Your task to perform on an android device: Go to privacy settings Image 0: 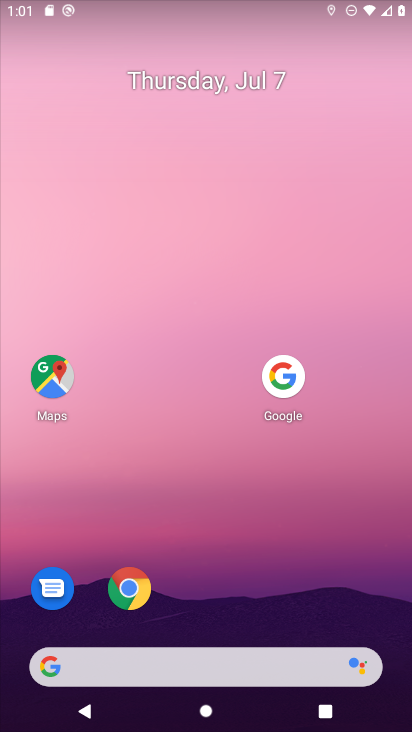
Step 0: drag from (212, 669) to (326, 65)
Your task to perform on an android device: Go to privacy settings Image 1: 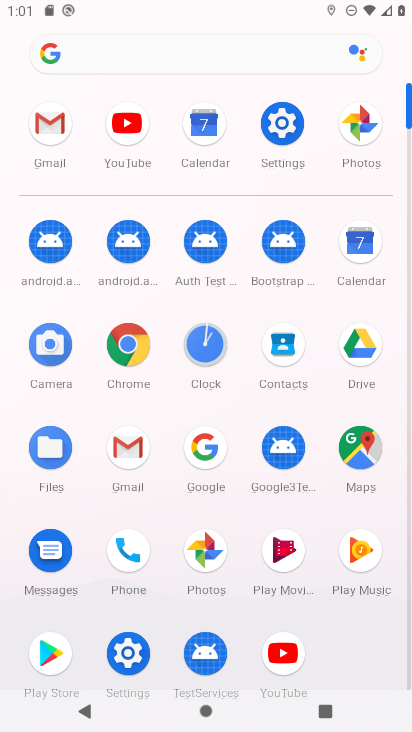
Step 1: click (290, 133)
Your task to perform on an android device: Go to privacy settings Image 2: 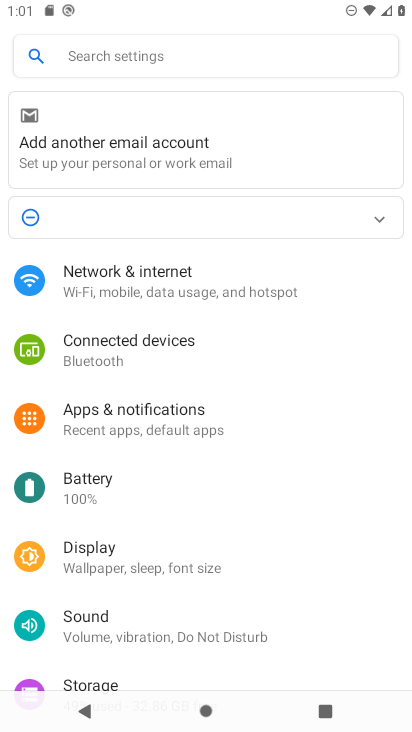
Step 2: drag from (193, 548) to (261, 166)
Your task to perform on an android device: Go to privacy settings Image 3: 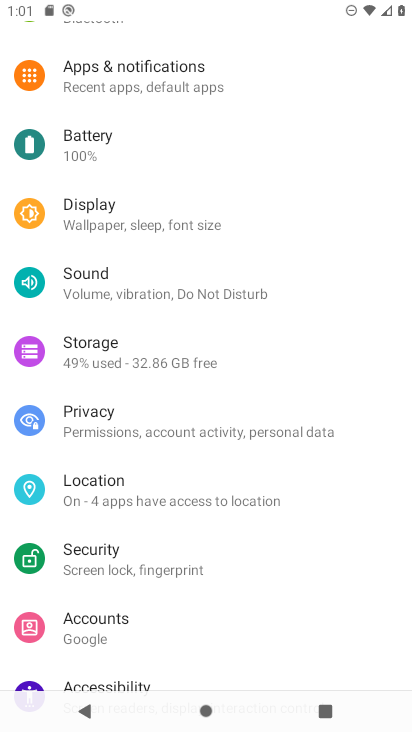
Step 3: click (94, 421)
Your task to perform on an android device: Go to privacy settings Image 4: 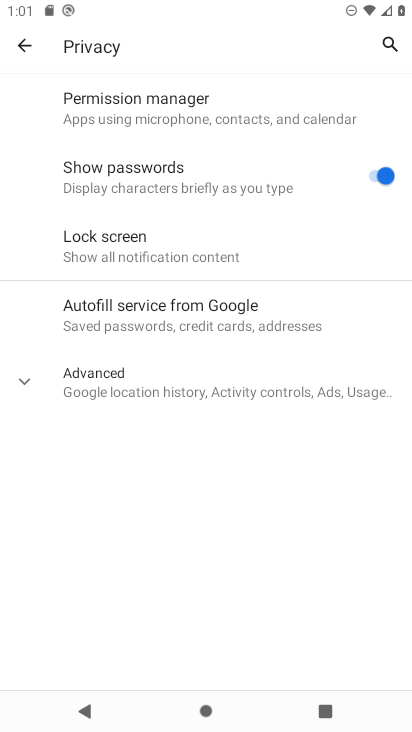
Step 4: task complete